Your task to perform on an android device: stop showing notifications on the lock screen Image 0: 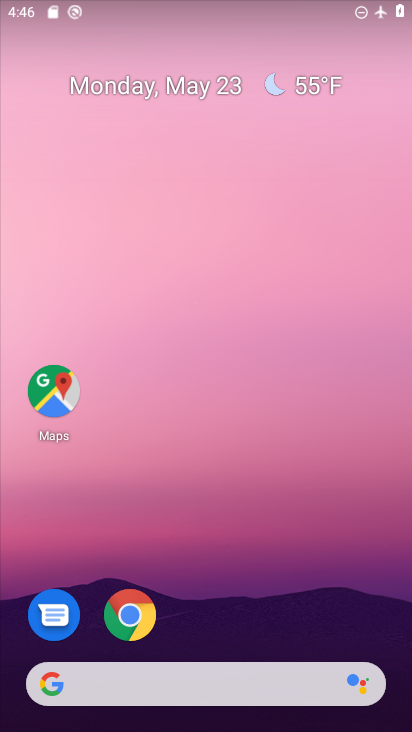
Step 0: drag from (350, 630) to (362, 115)
Your task to perform on an android device: stop showing notifications on the lock screen Image 1: 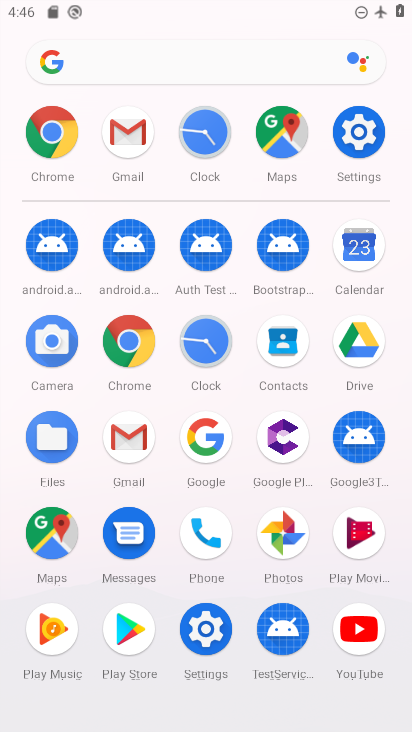
Step 1: click (355, 148)
Your task to perform on an android device: stop showing notifications on the lock screen Image 2: 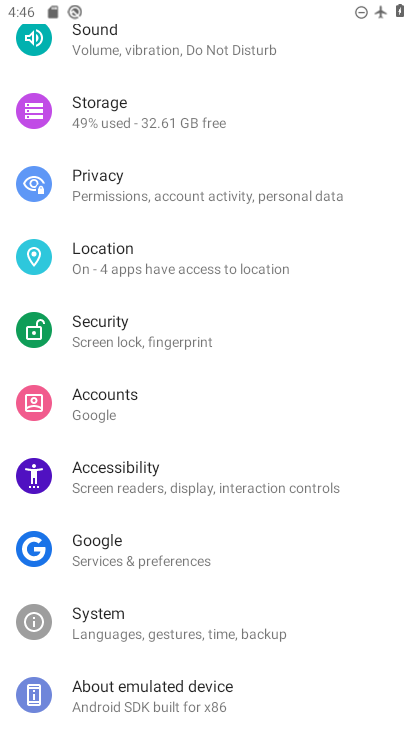
Step 2: drag from (362, 468) to (361, 535)
Your task to perform on an android device: stop showing notifications on the lock screen Image 3: 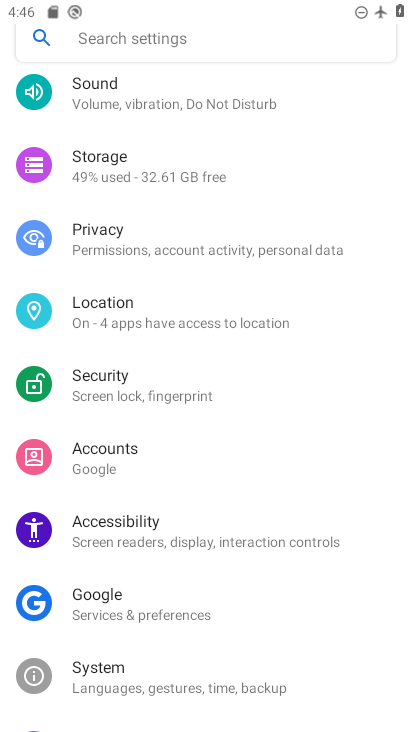
Step 3: drag from (341, 413) to (354, 510)
Your task to perform on an android device: stop showing notifications on the lock screen Image 4: 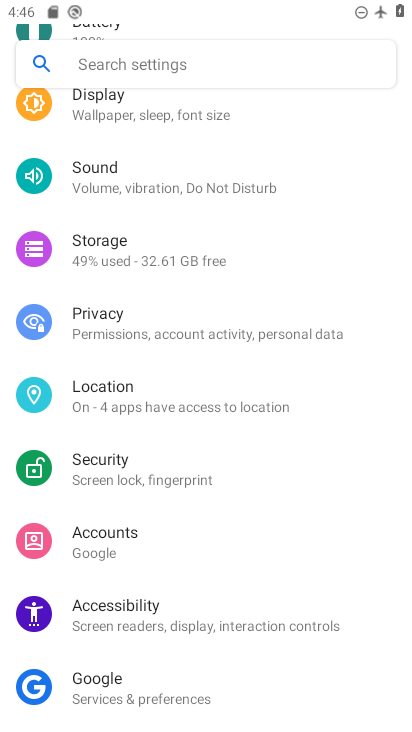
Step 4: drag from (347, 375) to (350, 485)
Your task to perform on an android device: stop showing notifications on the lock screen Image 5: 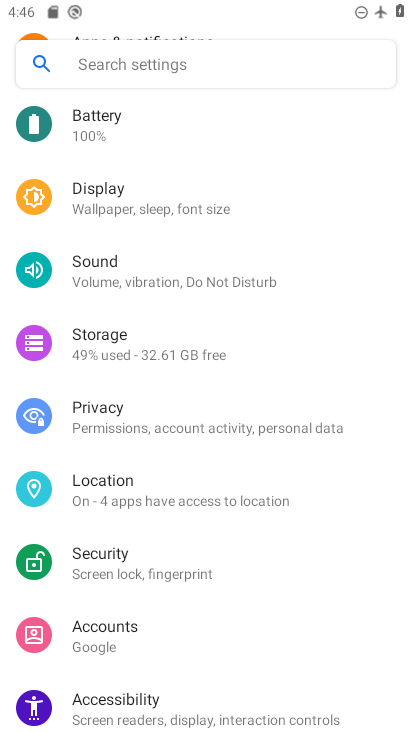
Step 5: drag from (338, 361) to (345, 455)
Your task to perform on an android device: stop showing notifications on the lock screen Image 6: 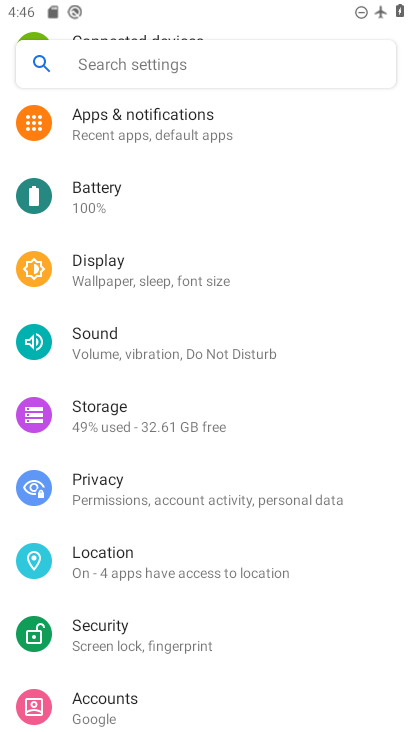
Step 6: drag from (334, 332) to (327, 438)
Your task to perform on an android device: stop showing notifications on the lock screen Image 7: 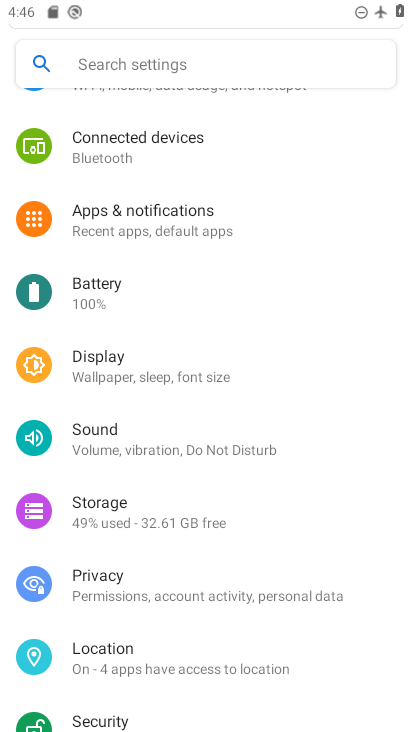
Step 7: drag from (305, 322) to (312, 430)
Your task to perform on an android device: stop showing notifications on the lock screen Image 8: 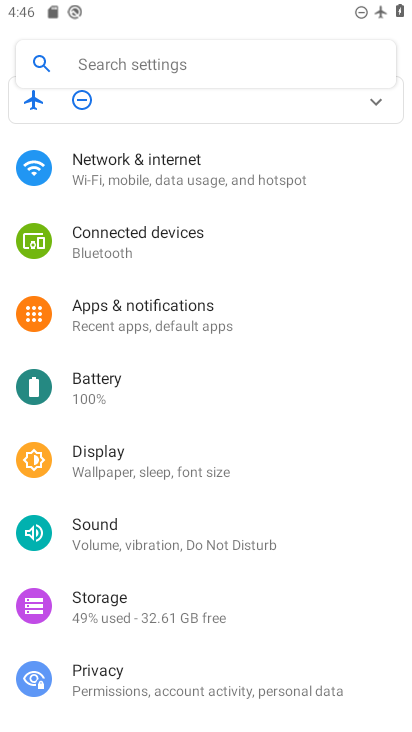
Step 8: drag from (321, 312) to (335, 447)
Your task to perform on an android device: stop showing notifications on the lock screen Image 9: 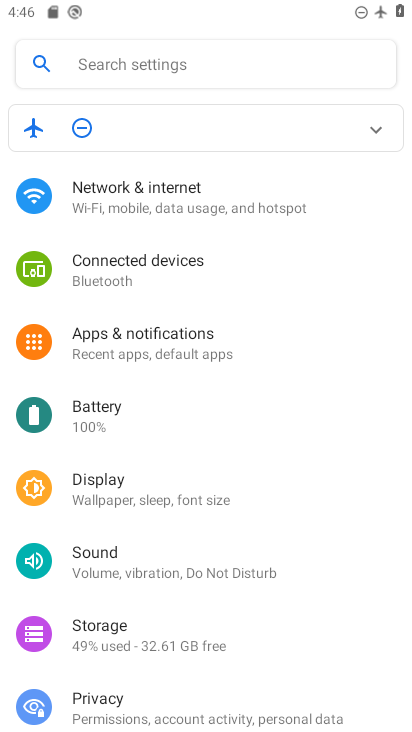
Step 9: click (230, 356)
Your task to perform on an android device: stop showing notifications on the lock screen Image 10: 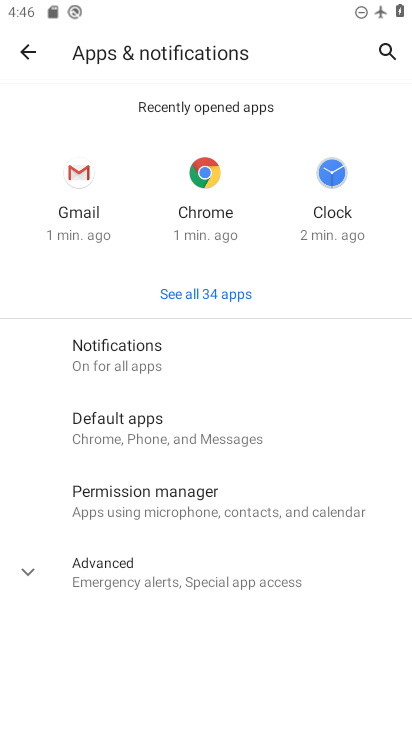
Step 10: click (147, 367)
Your task to perform on an android device: stop showing notifications on the lock screen Image 11: 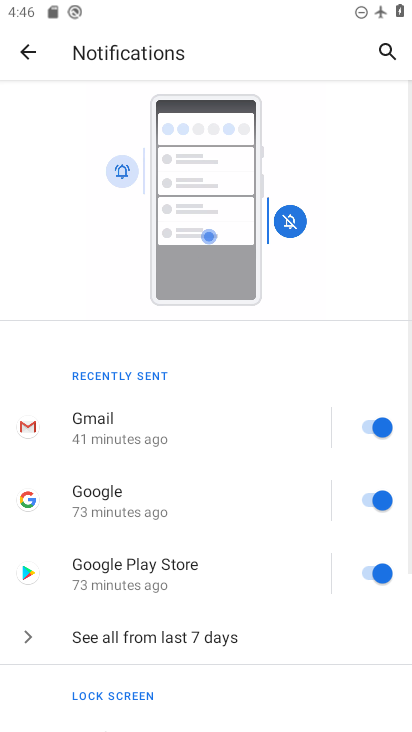
Step 11: drag from (236, 513) to (242, 436)
Your task to perform on an android device: stop showing notifications on the lock screen Image 12: 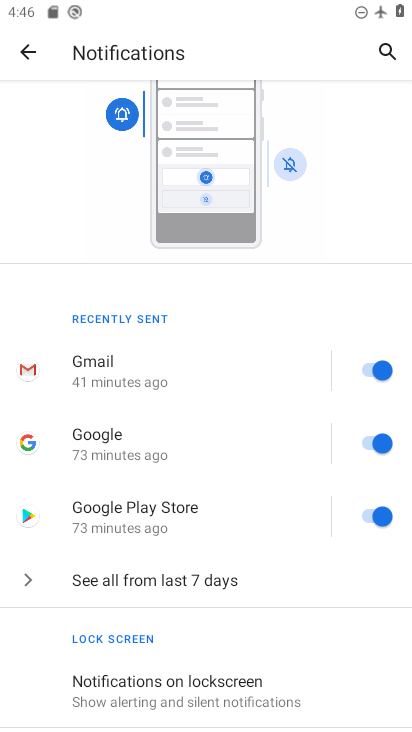
Step 12: drag from (255, 507) to (256, 434)
Your task to perform on an android device: stop showing notifications on the lock screen Image 13: 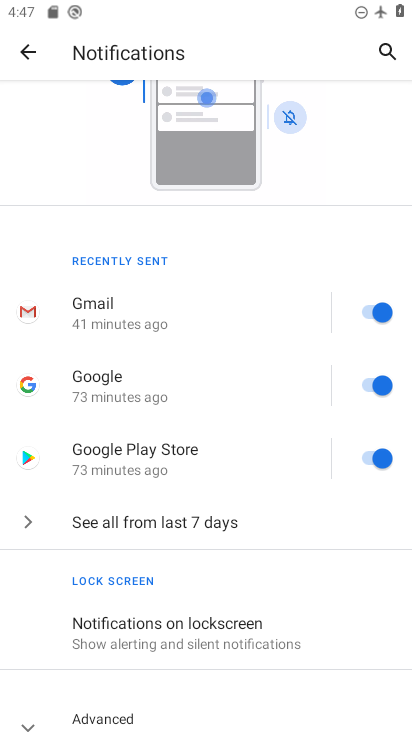
Step 13: drag from (267, 580) to (278, 464)
Your task to perform on an android device: stop showing notifications on the lock screen Image 14: 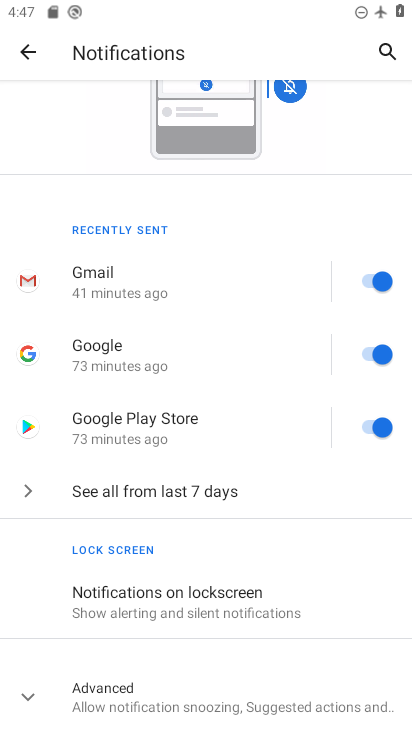
Step 14: click (257, 605)
Your task to perform on an android device: stop showing notifications on the lock screen Image 15: 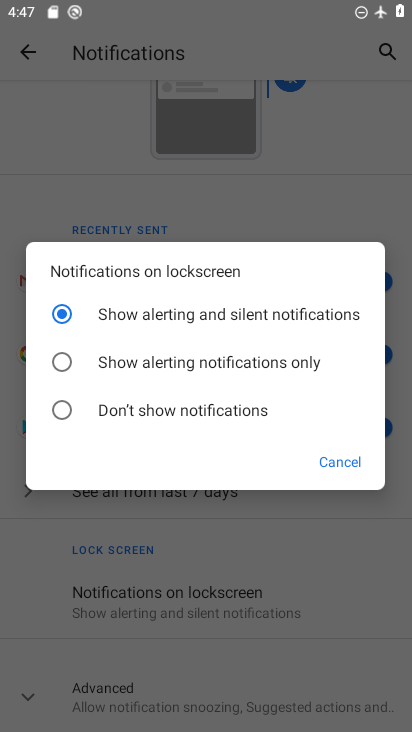
Step 15: click (233, 402)
Your task to perform on an android device: stop showing notifications on the lock screen Image 16: 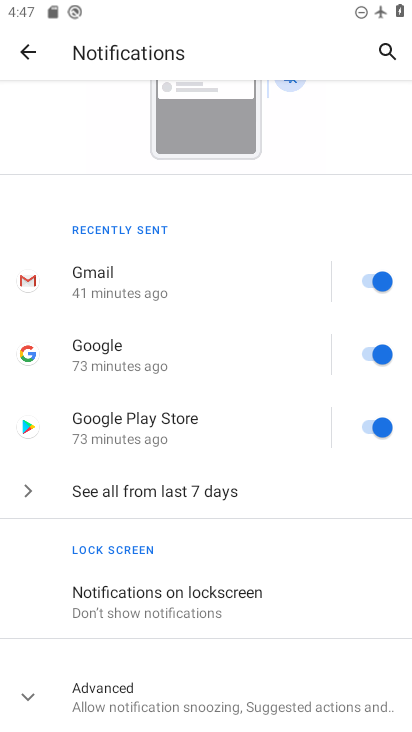
Step 16: task complete